Your task to perform on an android device: turn on data saver in the chrome app Image 0: 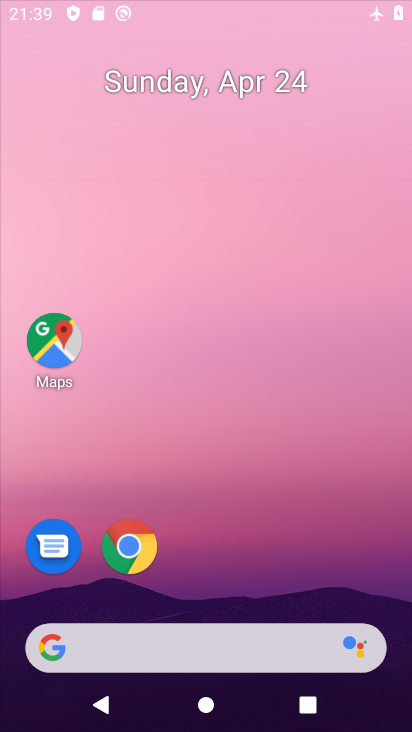
Step 0: click (299, 223)
Your task to perform on an android device: turn on data saver in the chrome app Image 1: 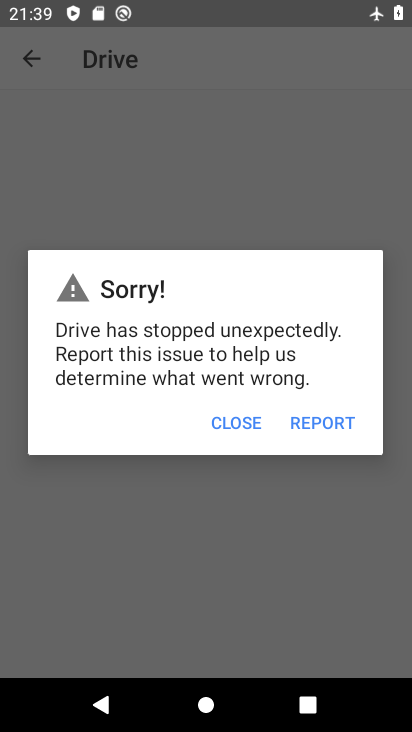
Step 1: press home button
Your task to perform on an android device: turn on data saver in the chrome app Image 2: 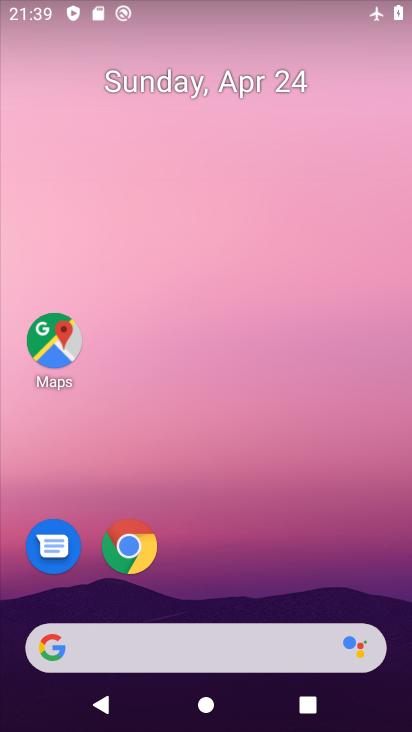
Step 2: drag from (254, 568) to (340, 211)
Your task to perform on an android device: turn on data saver in the chrome app Image 3: 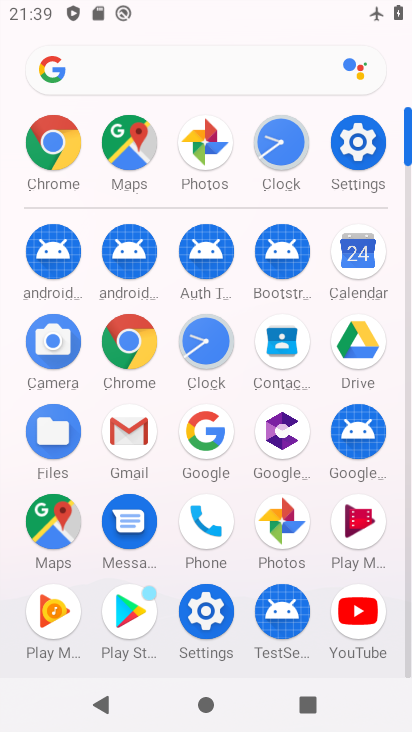
Step 3: click (55, 139)
Your task to perform on an android device: turn on data saver in the chrome app Image 4: 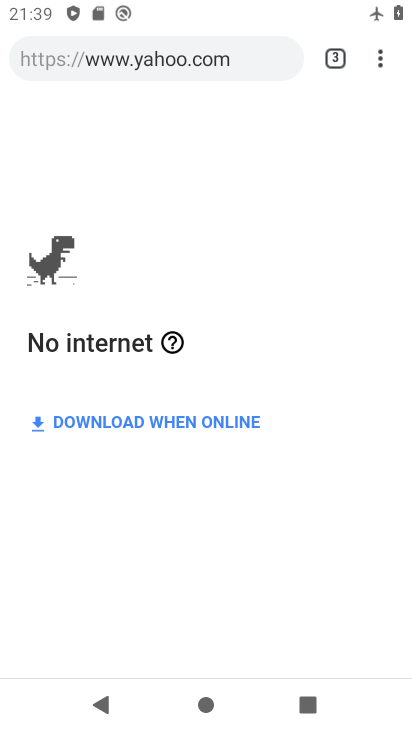
Step 4: click (376, 59)
Your task to perform on an android device: turn on data saver in the chrome app Image 5: 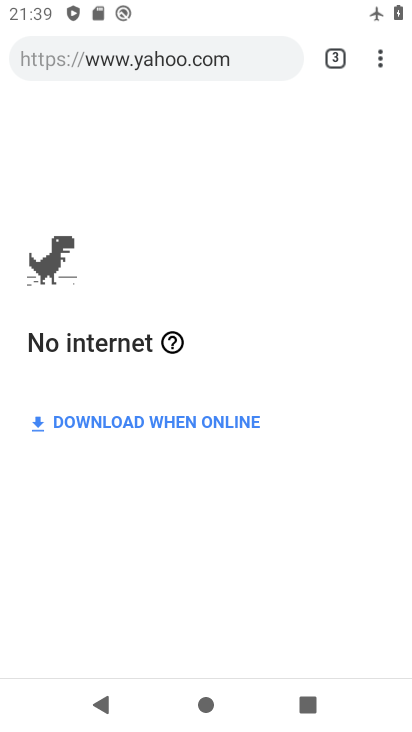
Step 5: click (369, 57)
Your task to perform on an android device: turn on data saver in the chrome app Image 6: 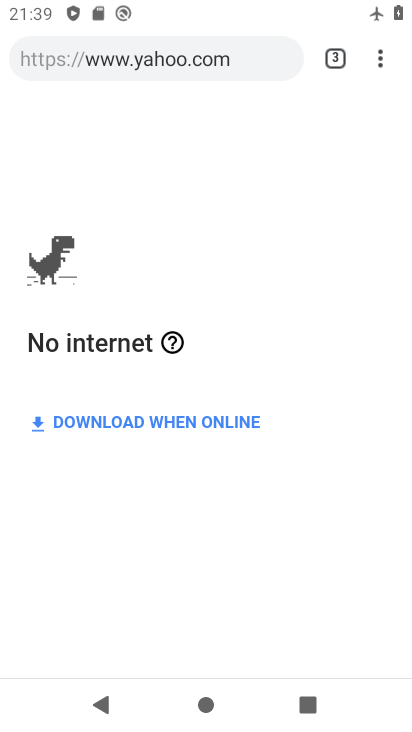
Step 6: click (370, 56)
Your task to perform on an android device: turn on data saver in the chrome app Image 7: 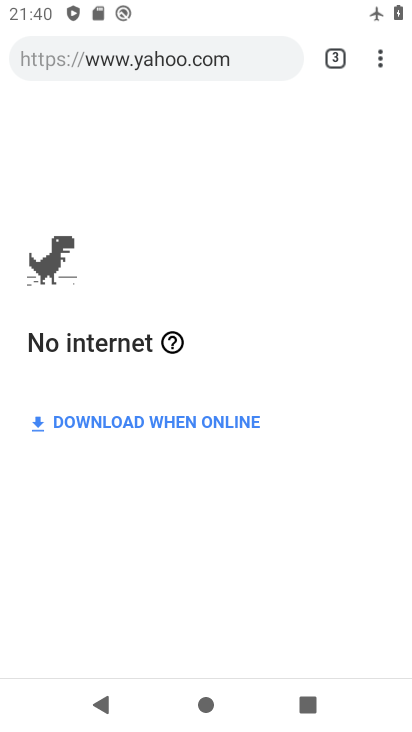
Step 7: click (372, 53)
Your task to perform on an android device: turn on data saver in the chrome app Image 8: 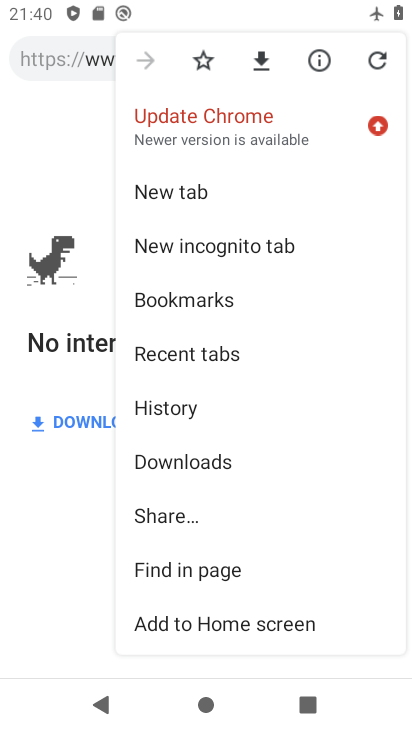
Step 8: drag from (247, 555) to (258, 211)
Your task to perform on an android device: turn on data saver in the chrome app Image 9: 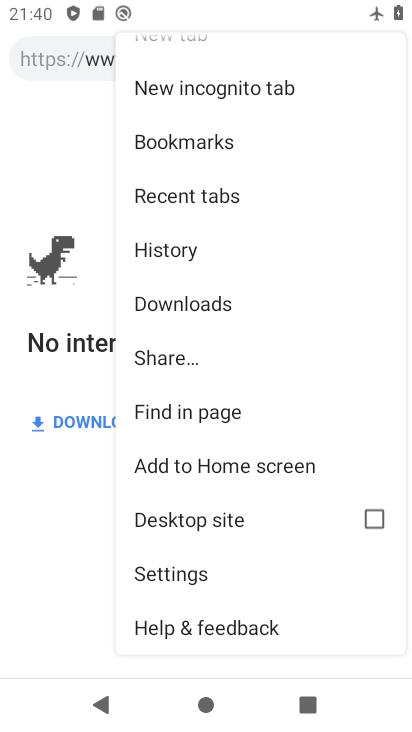
Step 9: click (205, 566)
Your task to perform on an android device: turn on data saver in the chrome app Image 10: 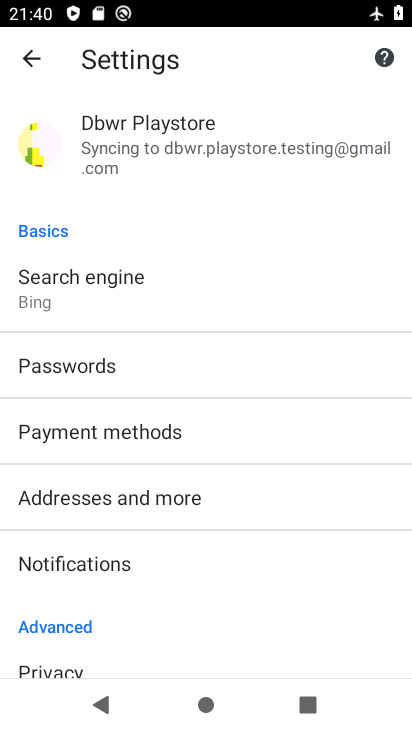
Step 10: drag from (242, 606) to (273, 219)
Your task to perform on an android device: turn on data saver in the chrome app Image 11: 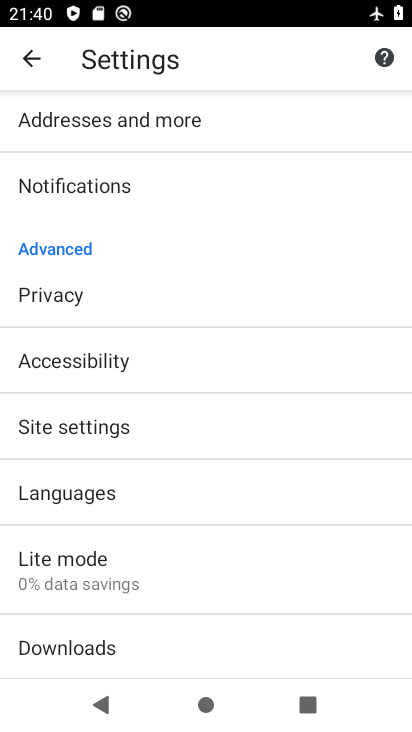
Step 11: click (136, 570)
Your task to perform on an android device: turn on data saver in the chrome app Image 12: 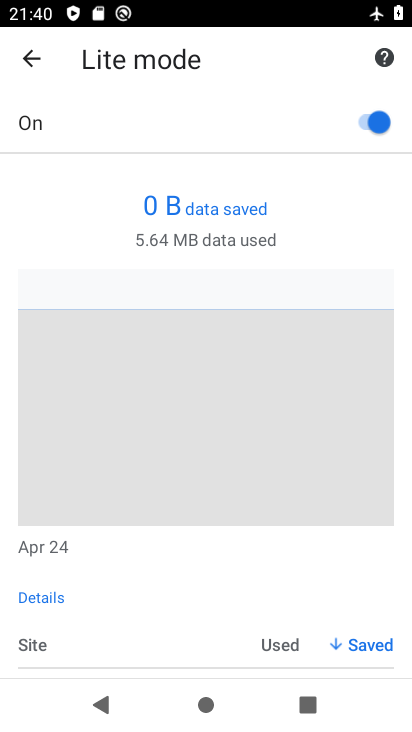
Step 12: task complete